Your task to perform on an android device: Open Android settings Image 0: 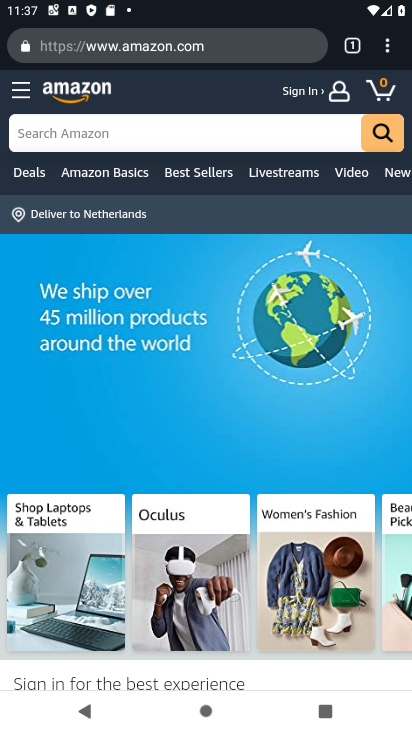
Step 0: press home button
Your task to perform on an android device: Open Android settings Image 1: 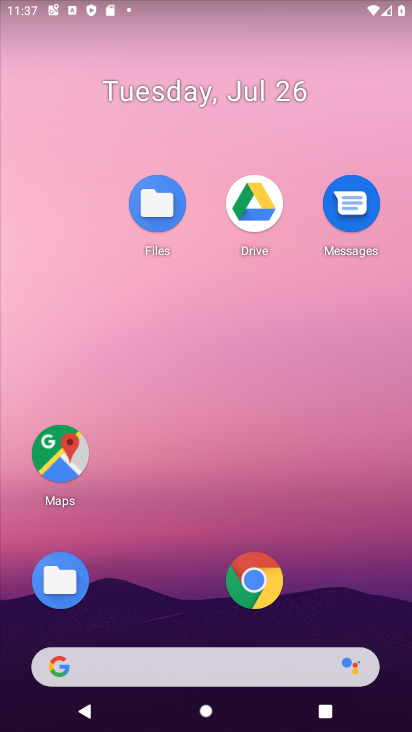
Step 1: drag from (157, 611) to (221, 104)
Your task to perform on an android device: Open Android settings Image 2: 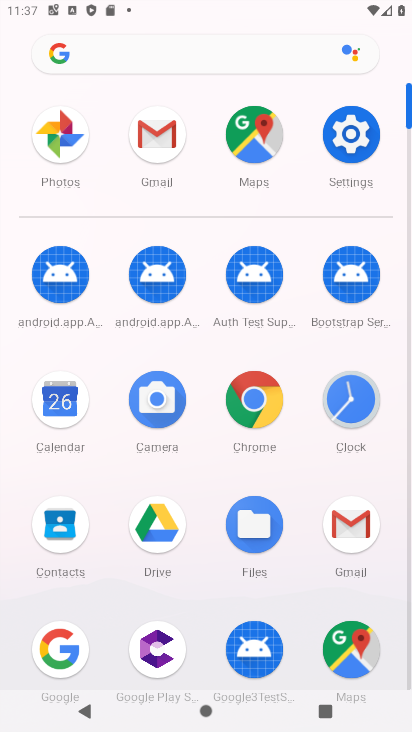
Step 2: click (352, 157)
Your task to perform on an android device: Open Android settings Image 3: 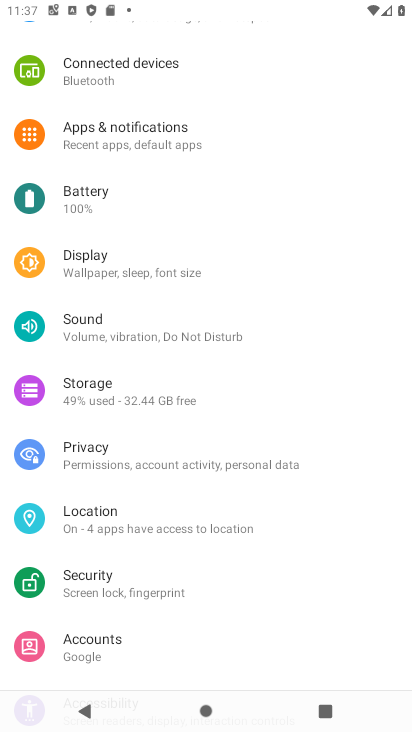
Step 3: task complete